Your task to perform on an android device: toggle notifications settings in the gmail app Image 0: 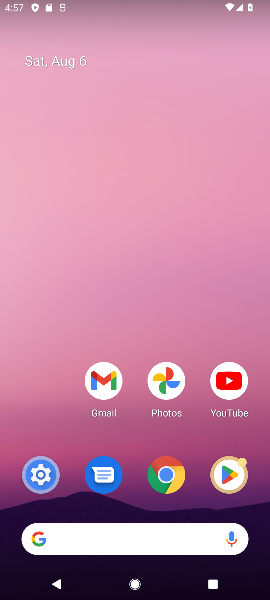
Step 0: click (161, 429)
Your task to perform on an android device: toggle notifications settings in the gmail app Image 1: 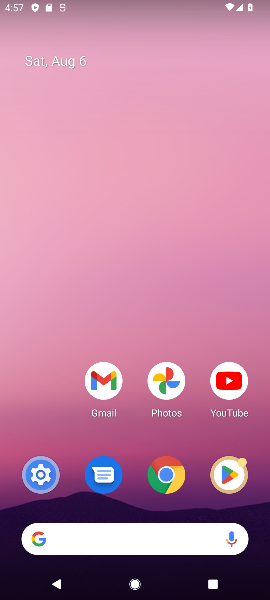
Step 1: click (107, 388)
Your task to perform on an android device: toggle notifications settings in the gmail app Image 2: 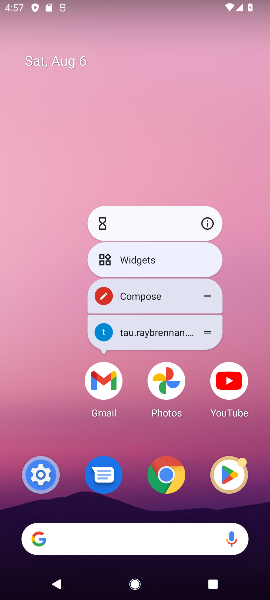
Step 2: click (207, 229)
Your task to perform on an android device: toggle notifications settings in the gmail app Image 3: 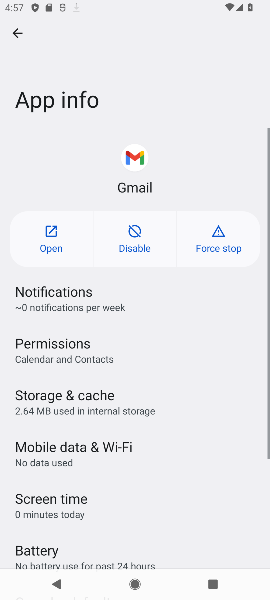
Step 3: click (146, 309)
Your task to perform on an android device: toggle notifications settings in the gmail app Image 4: 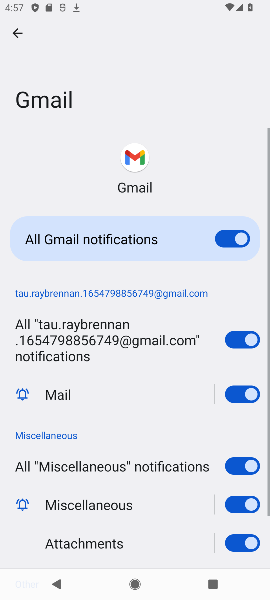
Step 4: click (240, 238)
Your task to perform on an android device: toggle notifications settings in the gmail app Image 5: 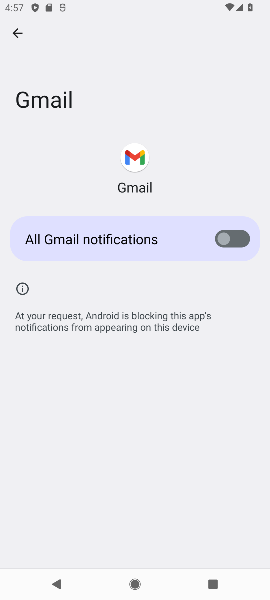
Step 5: task complete